Your task to perform on an android device: Search for pizza restaurants on Maps Image 0: 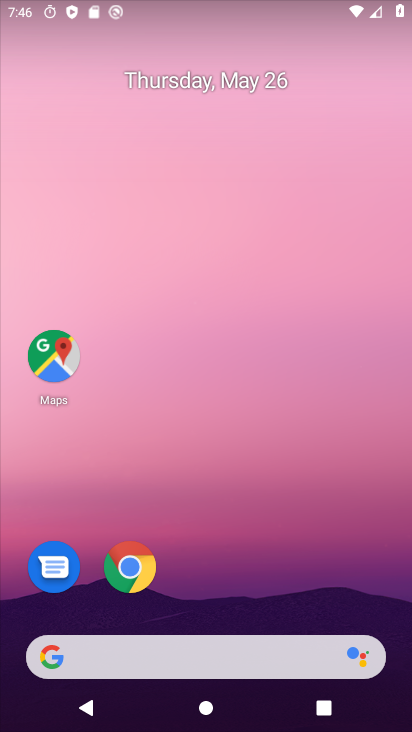
Step 0: click (59, 368)
Your task to perform on an android device: Search for pizza restaurants on Maps Image 1: 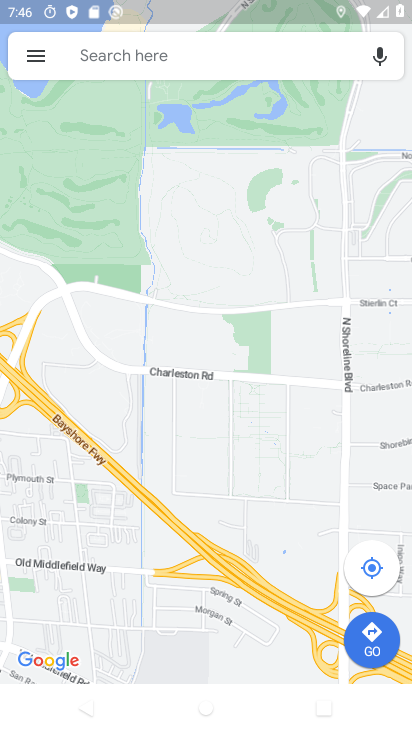
Step 1: click (178, 57)
Your task to perform on an android device: Search for pizza restaurants on Maps Image 2: 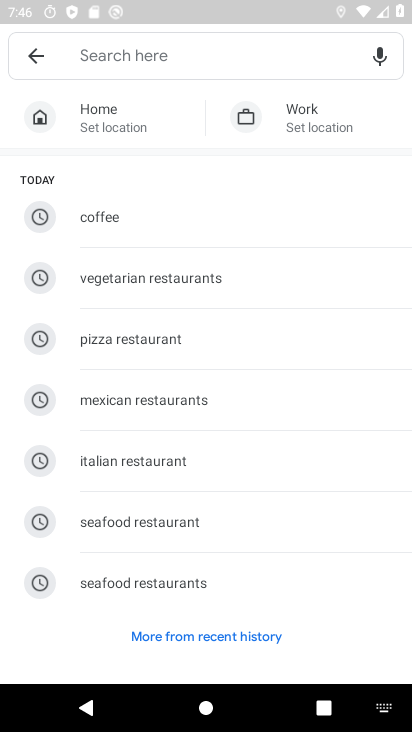
Step 2: click (166, 335)
Your task to perform on an android device: Search for pizza restaurants on Maps Image 3: 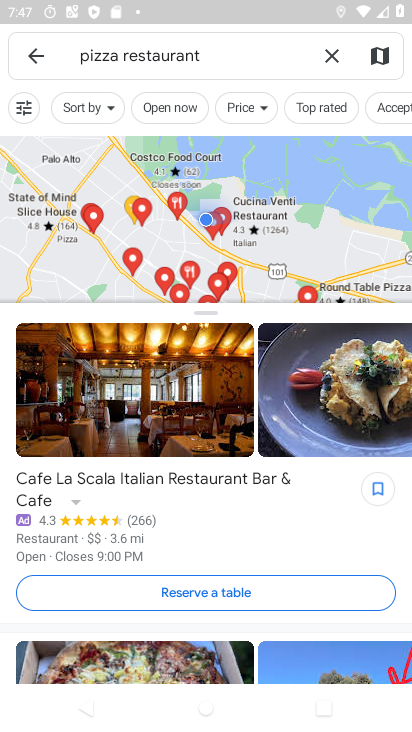
Step 3: task complete